Your task to perform on an android device: Go to Maps Image 0: 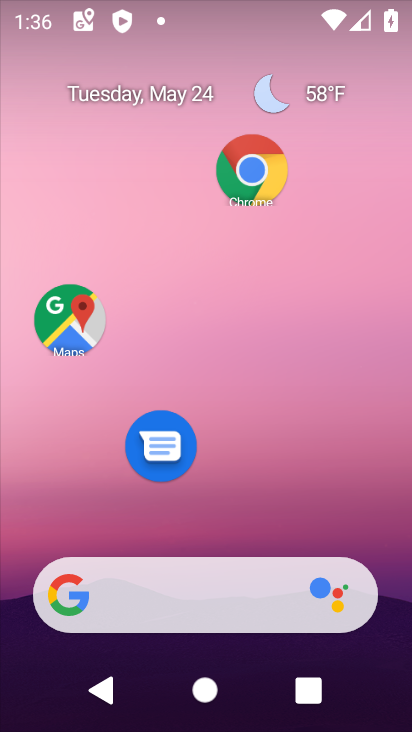
Step 0: drag from (224, 632) to (270, 180)
Your task to perform on an android device: Go to Maps Image 1: 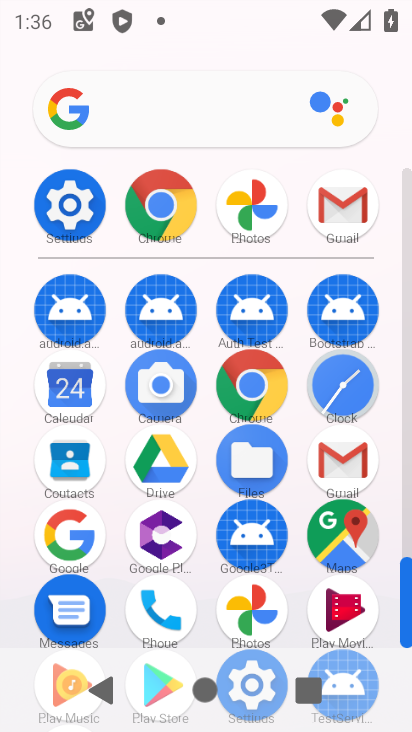
Step 1: click (334, 548)
Your task to perform on an android device: Go to Maps Image 2: 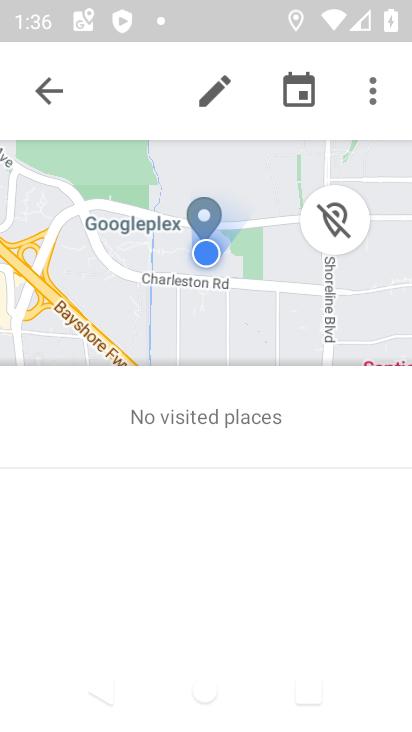
Step 2: click (57, 92)
Your task to perform on an android device: Go to Maps Image 3: 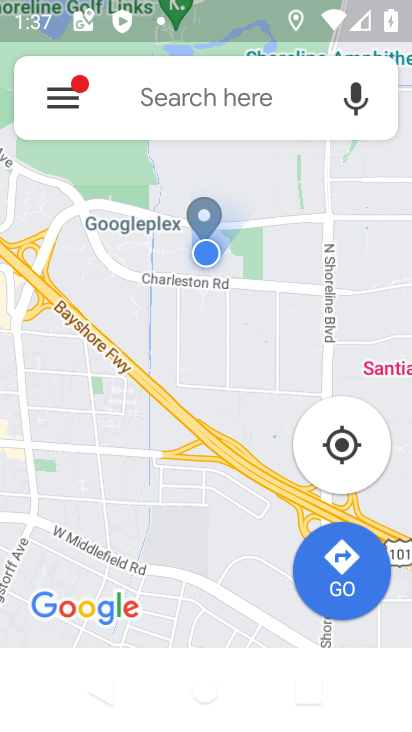
Step 3: task complete